Your task to perform on an android device: Go to Android settings Image 0: 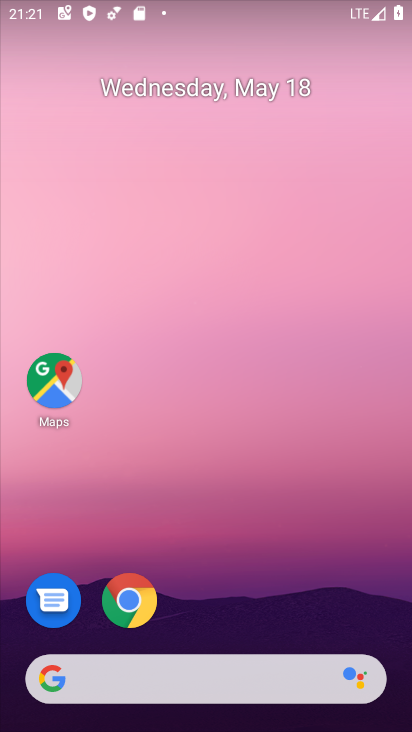
Step 0: drag from (209, 583) to (182, 8)
Your task to perform on an android device: Go to Android settings Image 1: 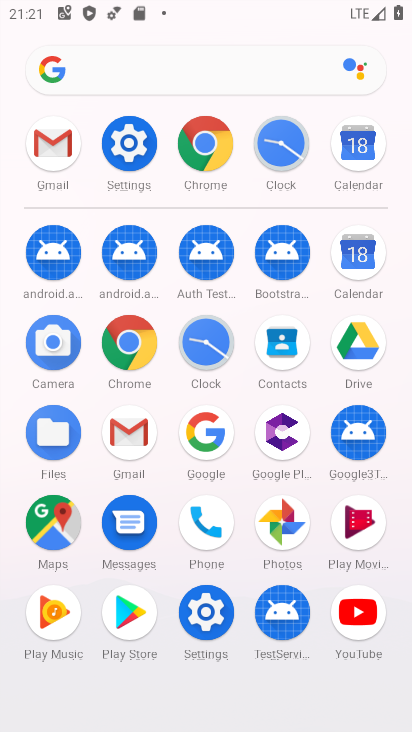
Step 1: click (125, 145)
Your task to perform on an android device: Go to Android settings Image 2: 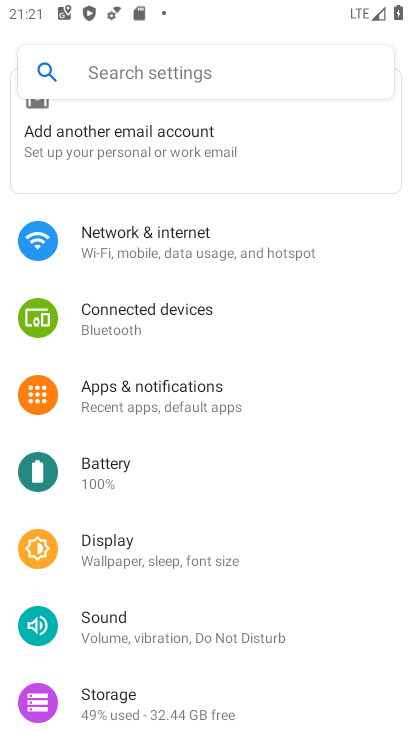
Step 2: drag from (193, 696) to (300, 68)
Your task to perform on an android device: Go to Android settings Image 3: 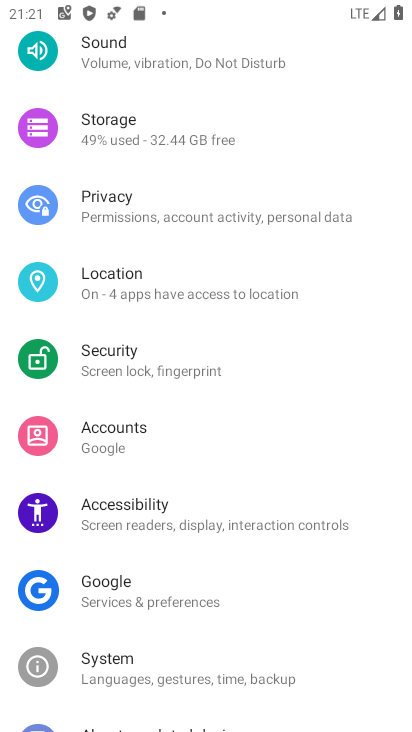
Step 3: drag from (157, 665) to (325, 20)
Your task to perform on an android device: Go to Android settings Image 4: 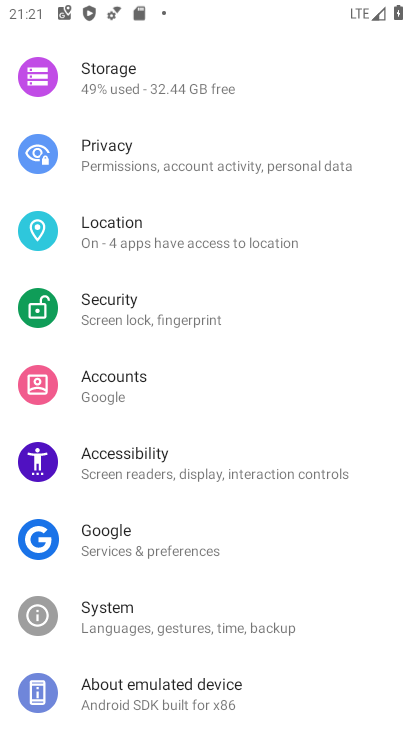
Step 4: drag from (219, 189) to (305, 61)
Your task to perform on an android device: Go to Android settings Image 5: 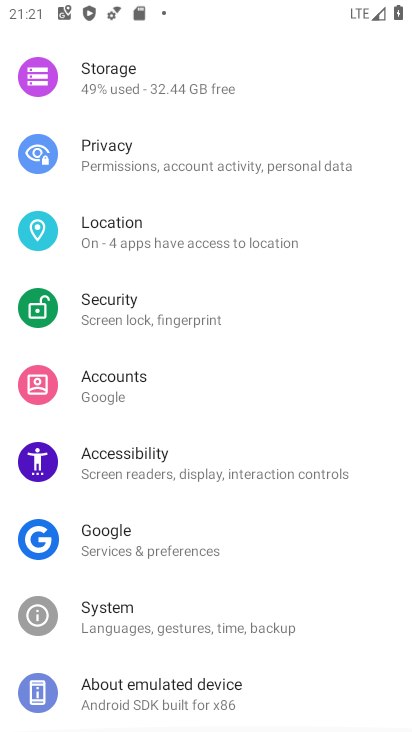
Step 5: click (159, 699)
Your task to perform on an android device: Go to Android settings Image 6: 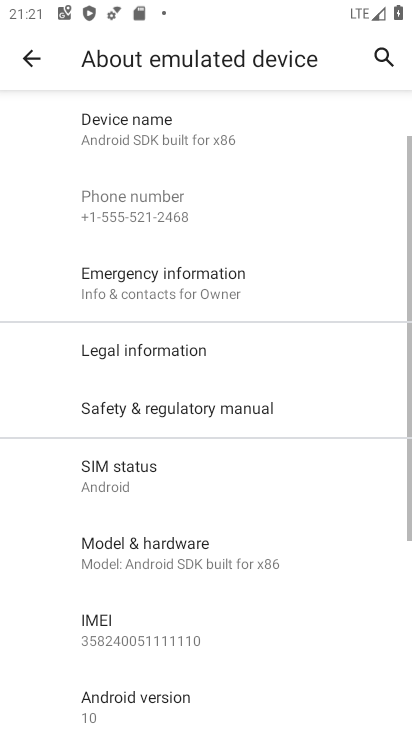
Step 6: click (126, 698)
Your task to perform on an android device: Go to Android settings Image 7: 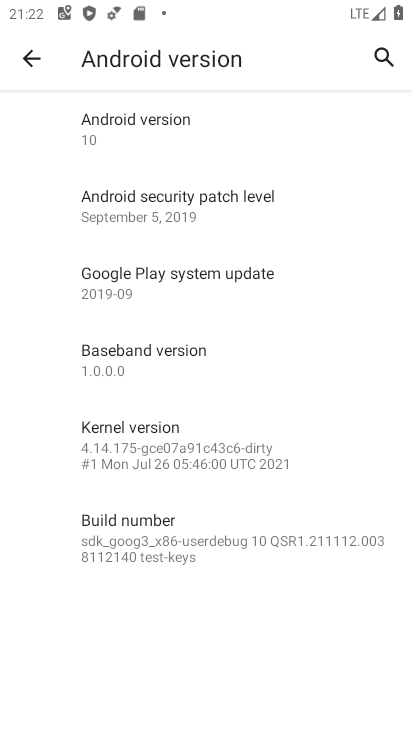
Step 7: task complete